Your task to perform on an android device: turn off improve location accuracy Image 0: 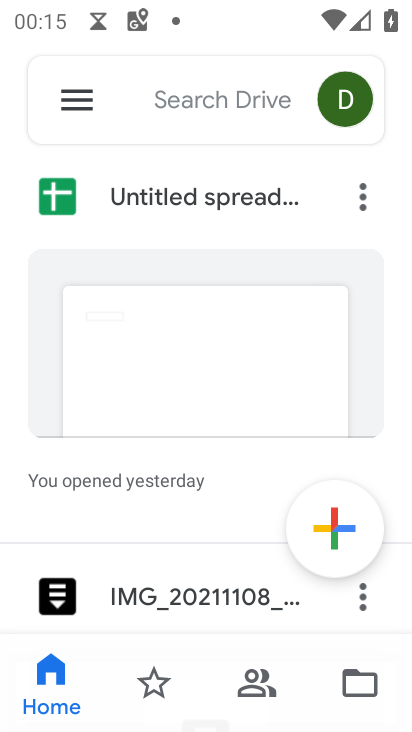
Step 0: press home button
Your task to perform on an android device: turn off improve location accuracy Image 1: 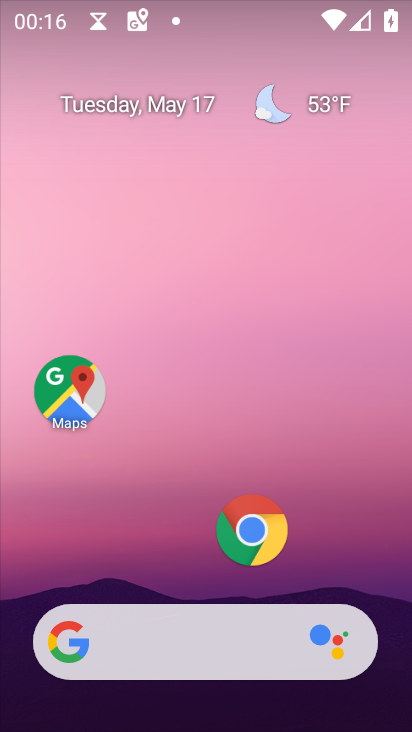
Step 1: drag from (314, 583) to (296, 287)
Your task to perform on an android device: turn off improve location accuracy Image 2: 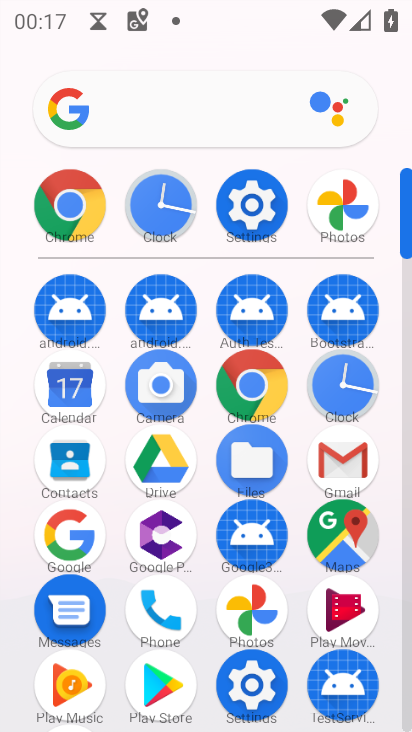
Step 2: click (252, 202)
Your task to perform on an android device: turn off improve location accuracy Image 3: 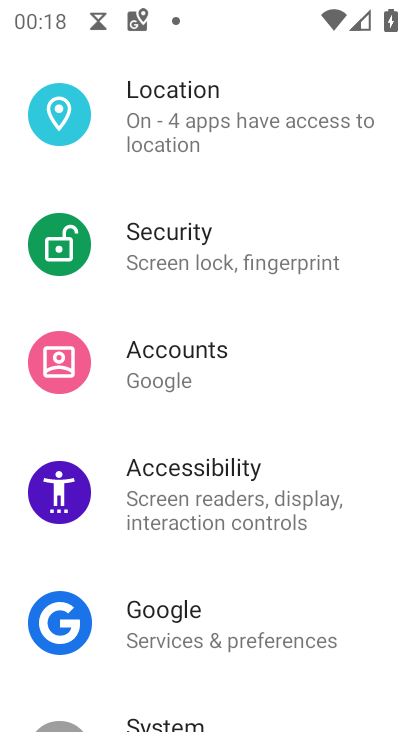
Step 3: click (225, 131)
Your task to perform on an android device: turn off improve location accuracy Image 4: 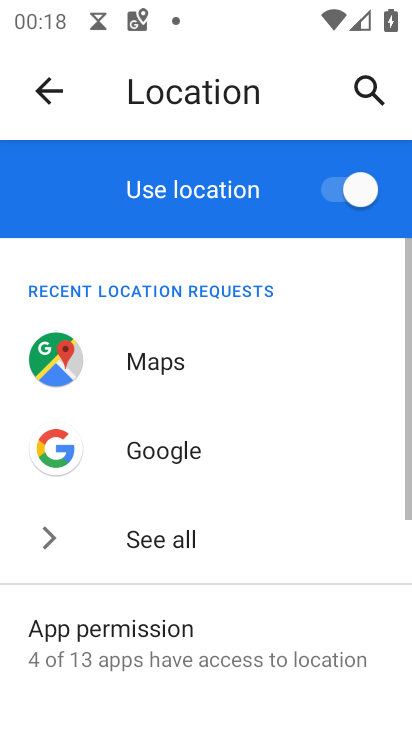
Step 4: drag from (322, 673) to (220, 132)
Your task to perform on an android device: turn off improve location accuracy Image 5: 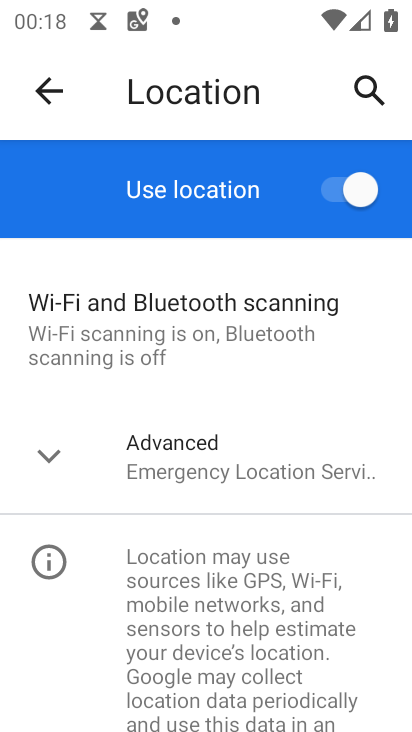
Step 5: click (218, 448)
Your task to perform on an android device: turn off improve location accuracy Image 6: 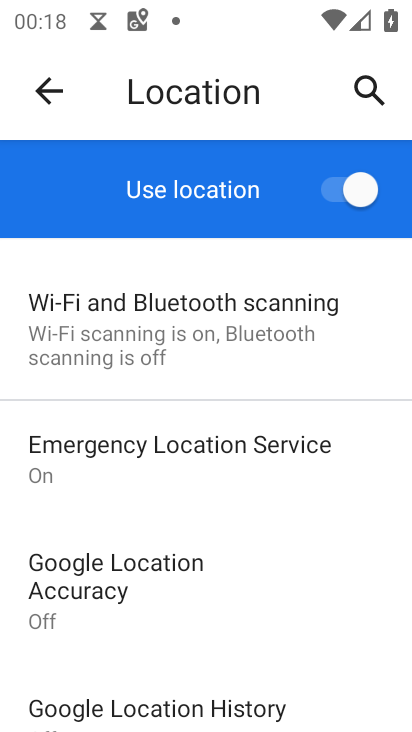
Step 6: click (95, 600)
Your task to perform on an android device: turn off improve location accuracy Image 7: 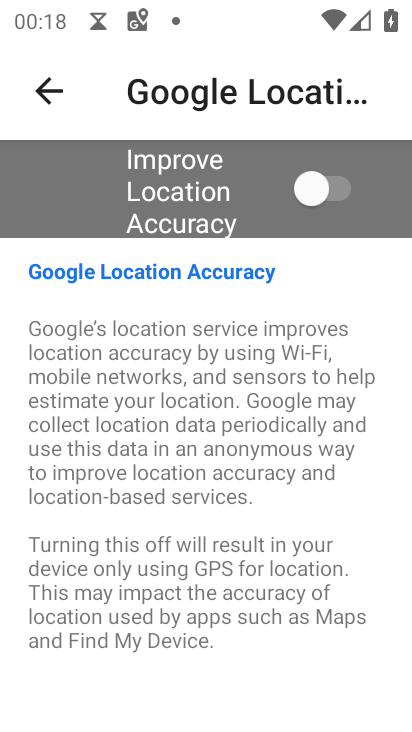
Step 7: task complete